Your task to perform on an android device: set the stopwatch Image 0: 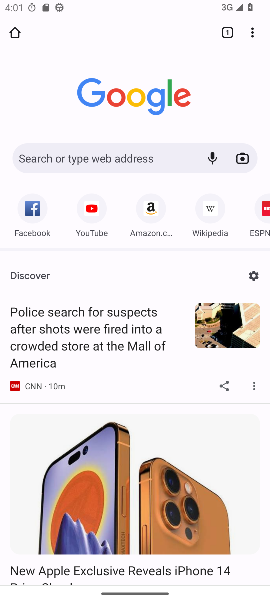
Step 0: press home button
Your task to perform on an android device: set the stopwatch Image 1: 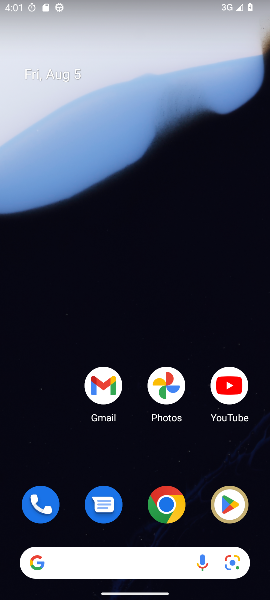
Step 1: drag from (105, 213) to (166, 58)
Your task to perform on an android device: set the stopwatch Image 2: 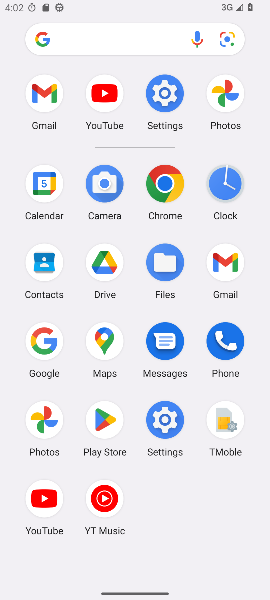
Step 2: click (223, 202)
Your task to perform on an android device: set the stopwatch Image 3: 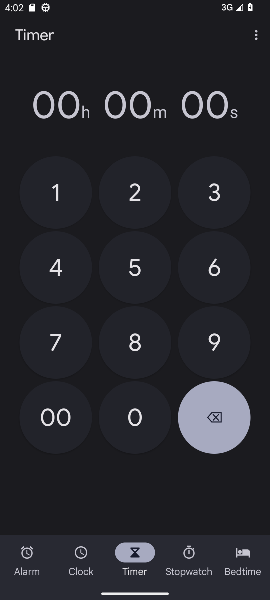
Step 3: click (198, 563)
Your task to perform on an android device: set the stopwatch Image 4: 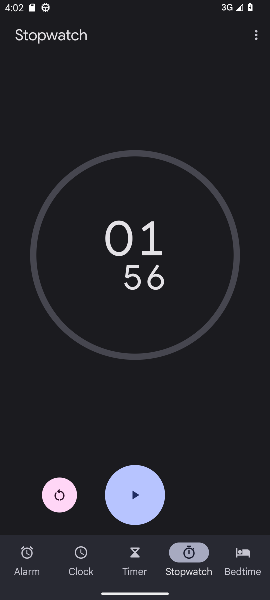
Step 4: click (139, 487)
Your task to perform on an android device: set the stopwatch Image 5: 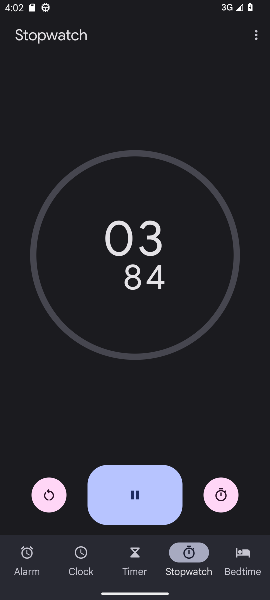
Step 5: click (125, 491)
Your task to perform on an android device: set the stopwatch Image 6: 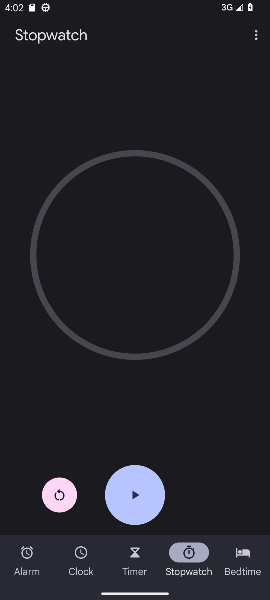
Step 6: task complete